Your task to perform on an android device: Open Youtube and go to the subscriptions tab Image 0: 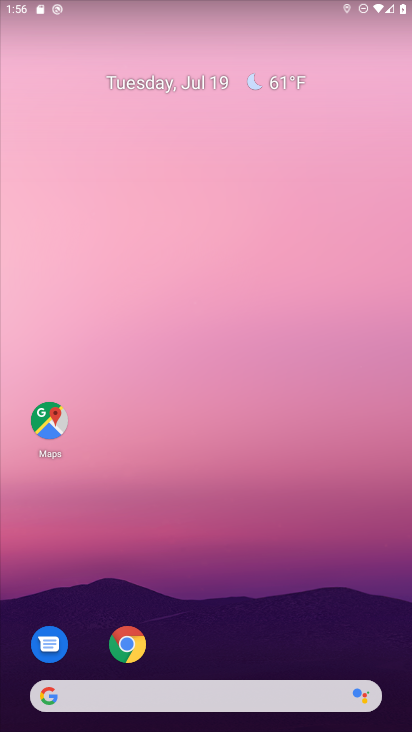
Step 0: drag from (250, 677) to (215, 143)
Your task to perform on an android device: Open Youtube and go to the subscriptions tab Image 1: 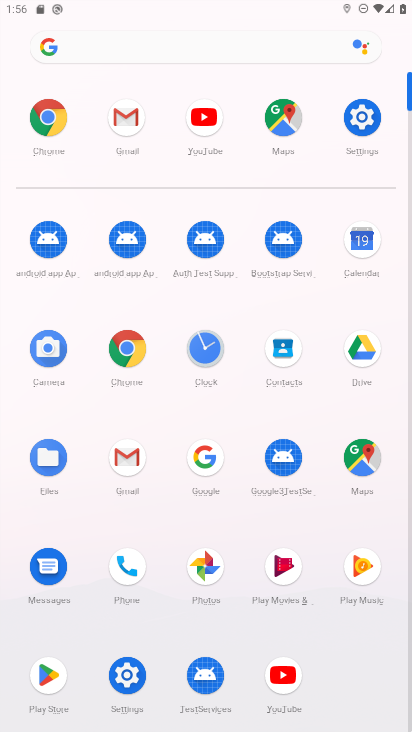
Step 1: click (285, 672)
Your task to perform on an android device: Open Youtube and go to the subscriptions tab Image 2: 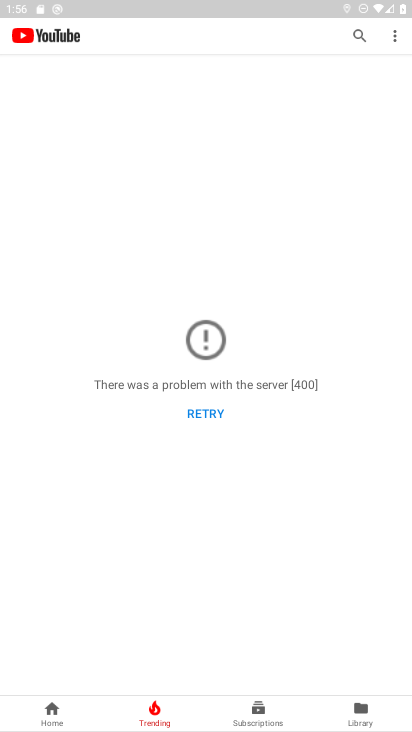
Step 2: click (274, 706)
Your task to perform on an android device: Open Youtube and go to the subscriptions tab Image 3: 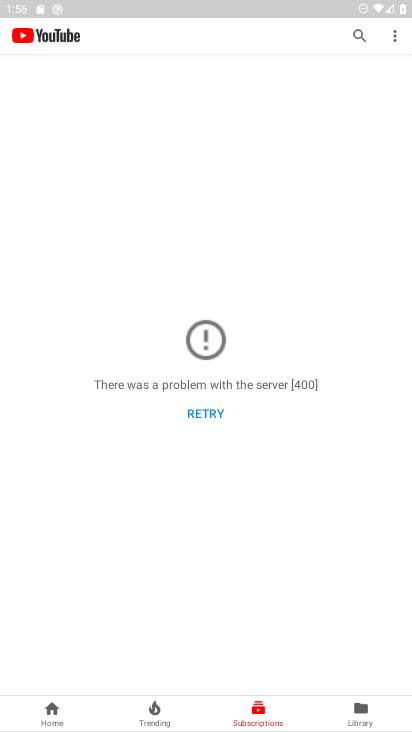
Step 3: task complete